Your task to perform on an android device: Go to Amazon Image 0: 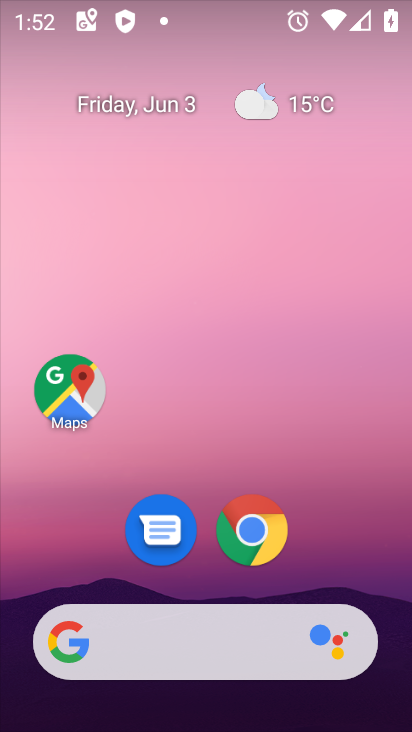
Step 0: click (184, 646)
Your task to perform on an android device: Go to Amazon Image 1: 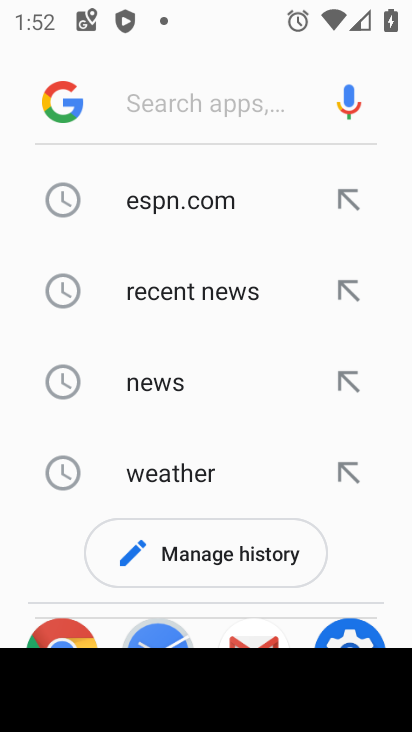
Step 1: type " Amazon"
Your task to perform on an android device: Go to Amazon Image 2: 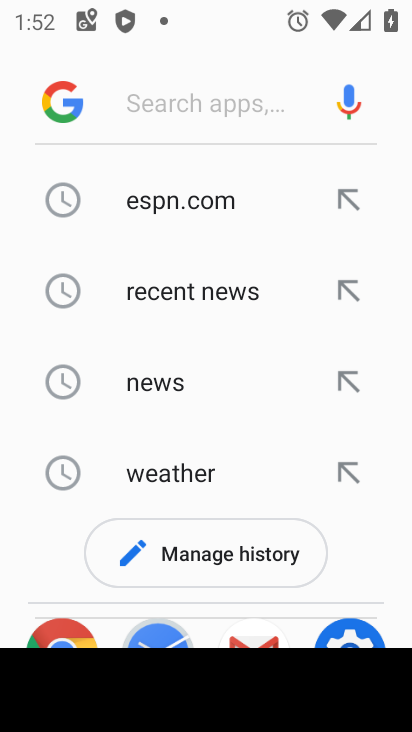
Step 2: click (239, 105)
Your task to perform on an android device: Go to Amazon Image 3: 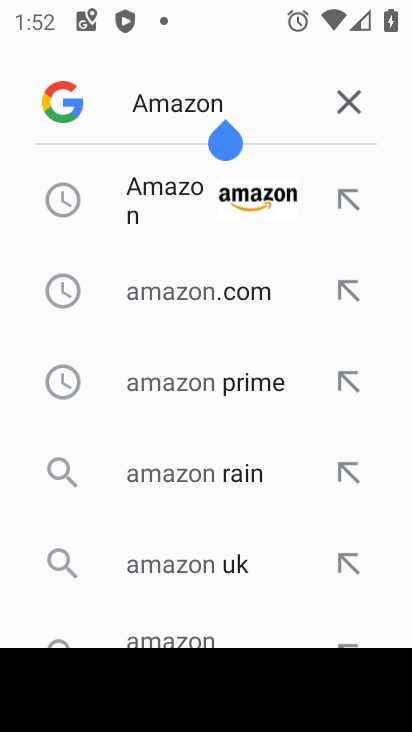
Step 3: click (198, 192)
Your task to perform on an android device: Go to Amazon Image 4: 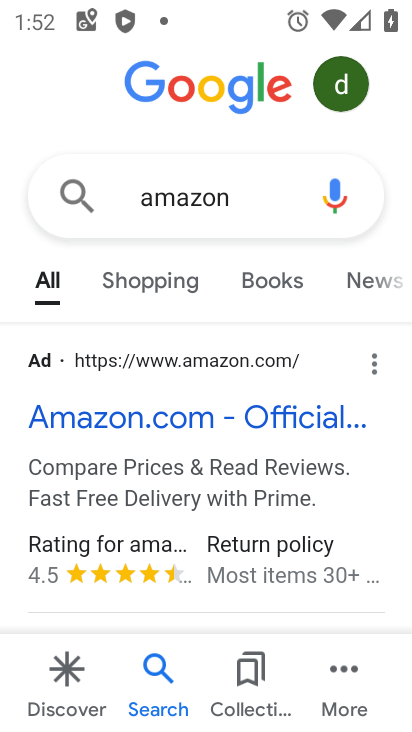
Step 4: drag from (272, 595) to (303, 258)
Your task to perform on an android device: Go to Amazon Image 5: 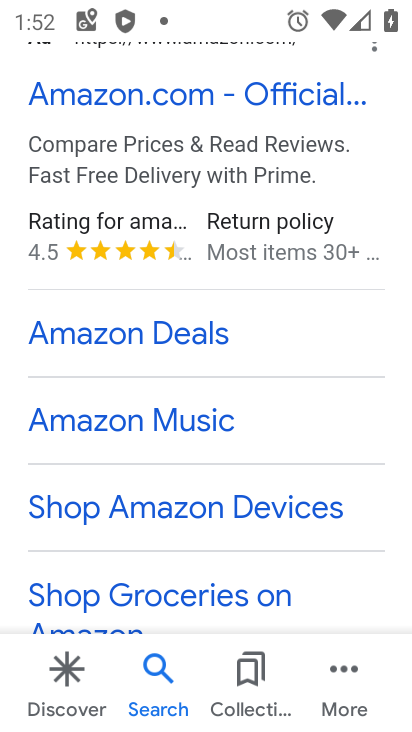
Step 5: drag from (318, 345) to (338, 78)
Your task to perform on an android device: Go to Amazon Image 6: 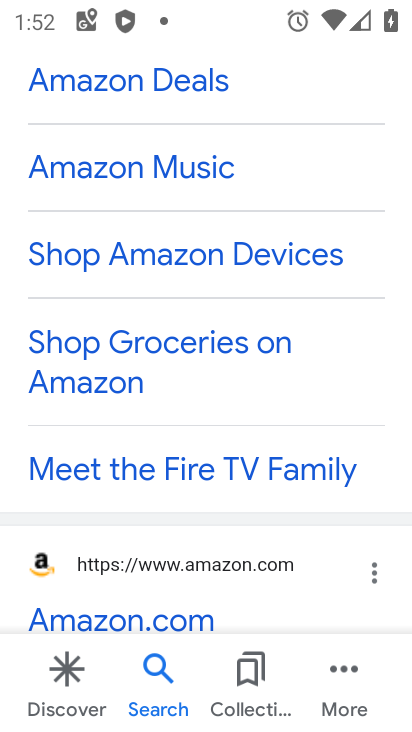
Step 6: click (153, 621)
Your task to perform on an android device: Go to Amazon Image 7: 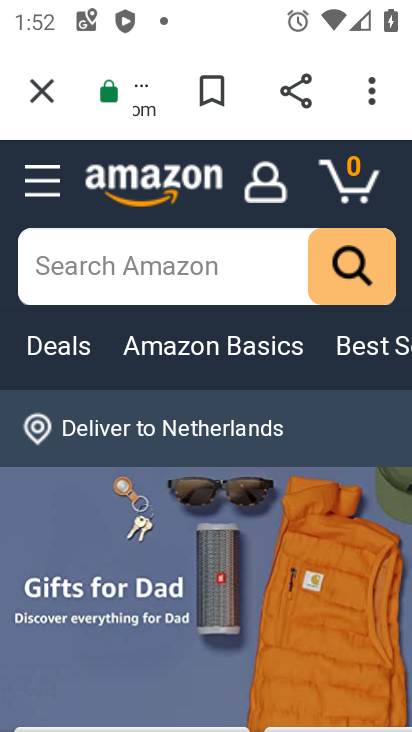
Step 7: task complete